Your task to perform on an android device: Toggle the flashlight Image 0: 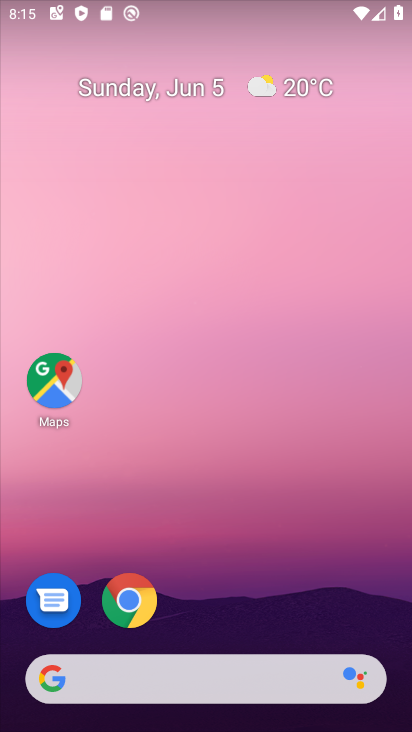
Step 0: drag from (358, 20) to (358, 587)
Your task to perform on an android device: Toggle the flashlight Image 1: 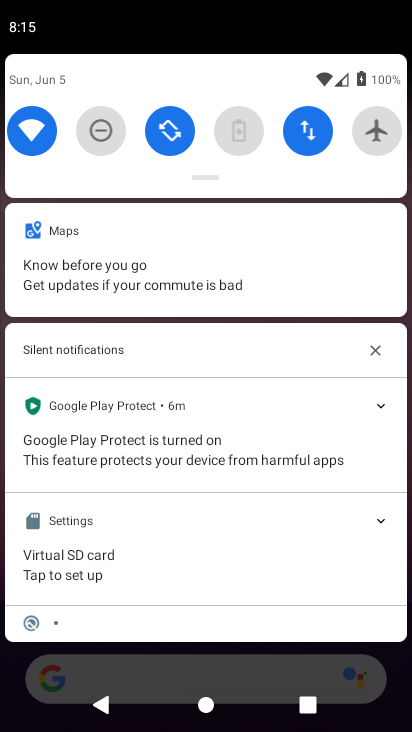
Step 1: task complete